Your task to perform on an android device: add a contact Image 0: 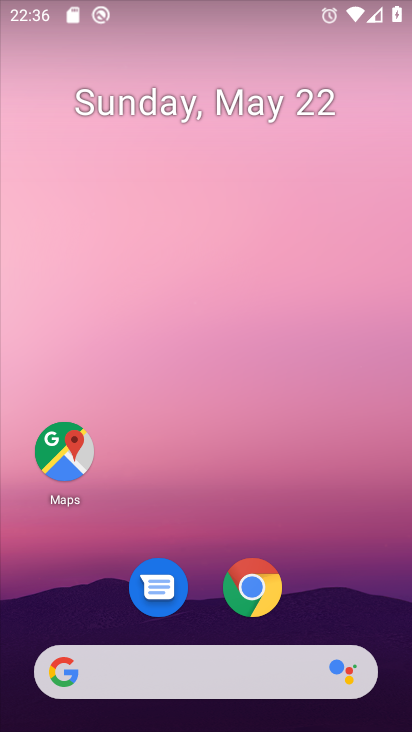
Step 0: drag from (248, 499) to (290, 34)
Your task to perform on an android device: add a contact Image 1: 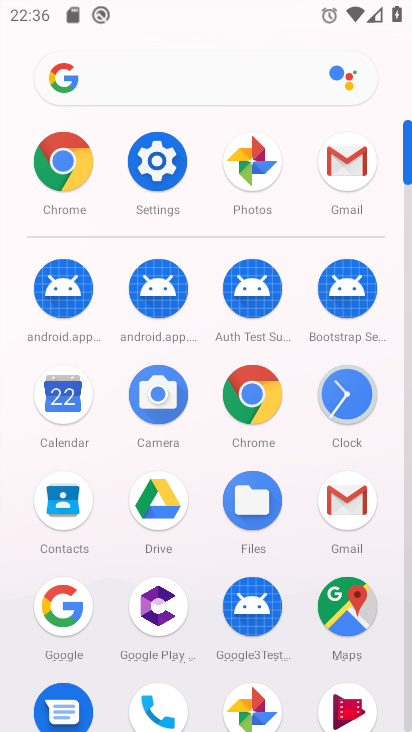
Step 1: click (71, 490)
Your task to perform on an android device: add a contact Image 2: 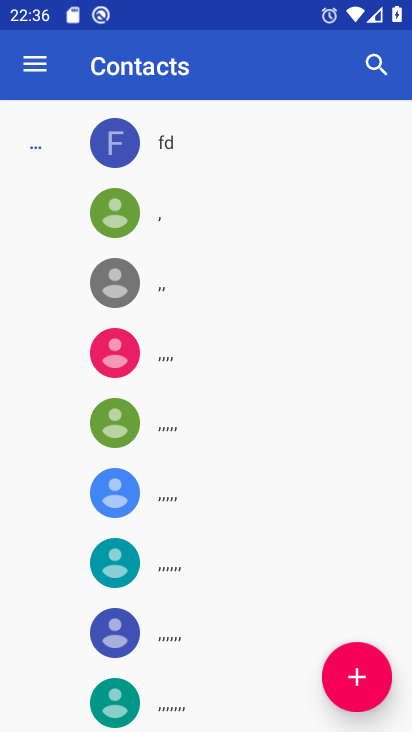
Step 2: click (358, 664)
Your task to perform on an android device: add a contact Image 3: 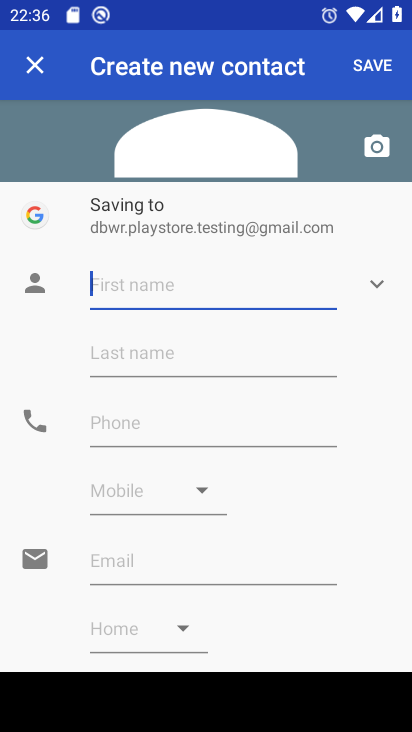
Step 3: type "Dhruva"
Your task to perform on an android device: add a contact Image 4: 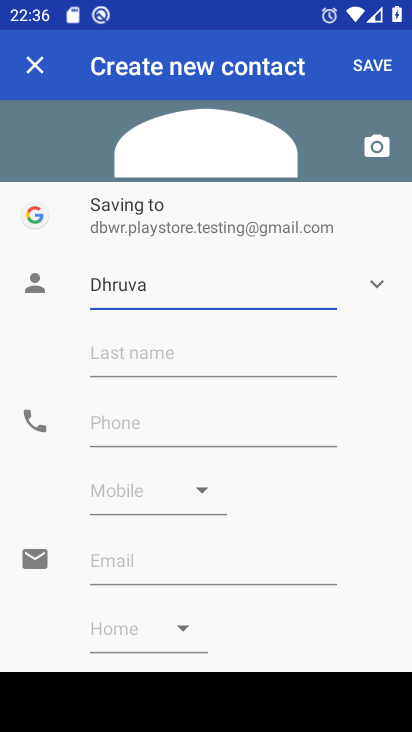
Step 4: click (283, 422)
Your task to perform on an android device: add a contact Image 5: 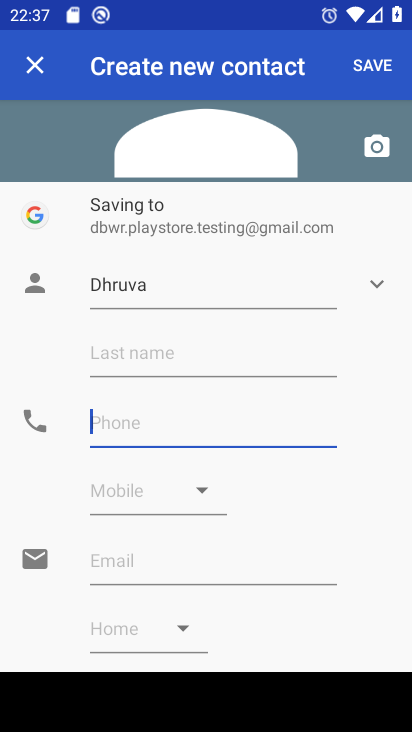
Step 5: type "0223344556677"
Your task to perform on an android device: add a contact Image 6: 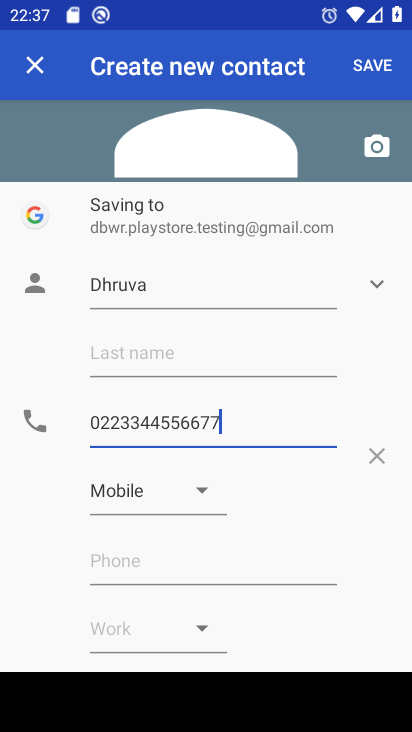
Step 6: click (383, 69)
Your task to perform on an android device: add a contact Image 7: 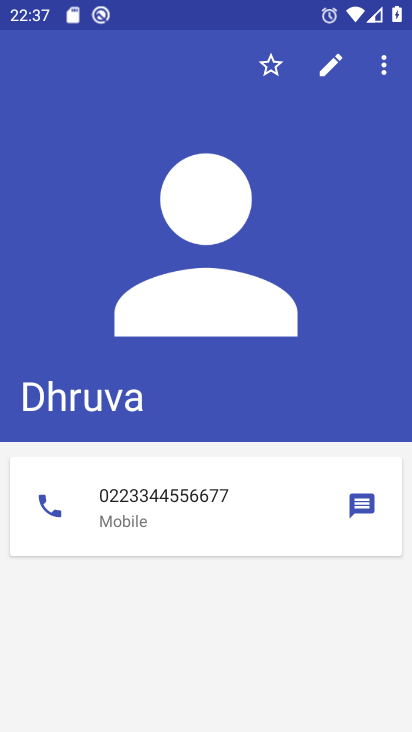
Step 7: task complete